Your task to perform on an android device: Open Youtube and go to the subscriptions tab Image 0: 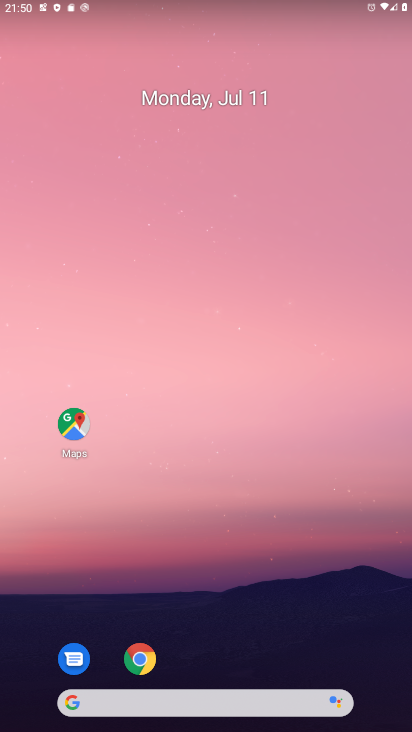
Step 0: click (249, 47)
Your task to perform on an android device: Open Youtube and go to the subscriptions tab Image 1: 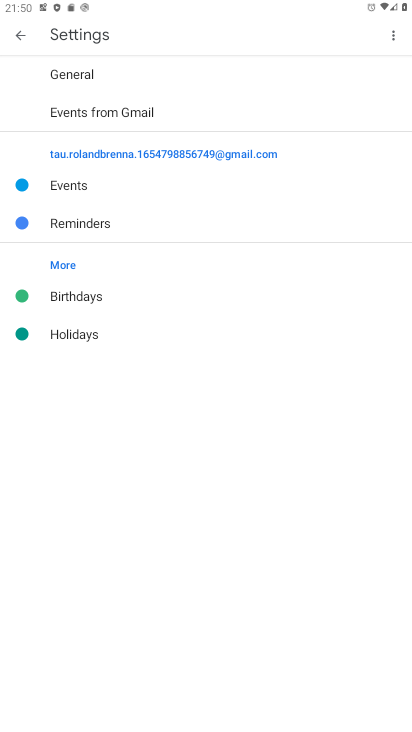
Step 1: press home button
Your task to perform on an android device: Open Youtube and go to the subscriptions tab Image 2: 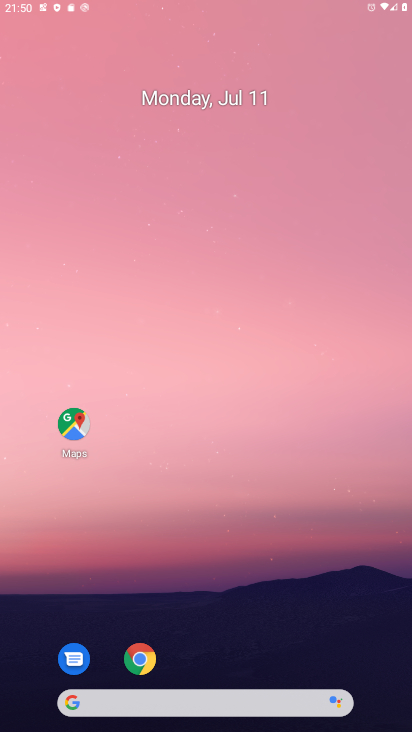
Step 2: drag from (154, 653) to (290, 183)
Your task to perform on an android device: Open Youtube and go to the subscriptions tab Image 3: 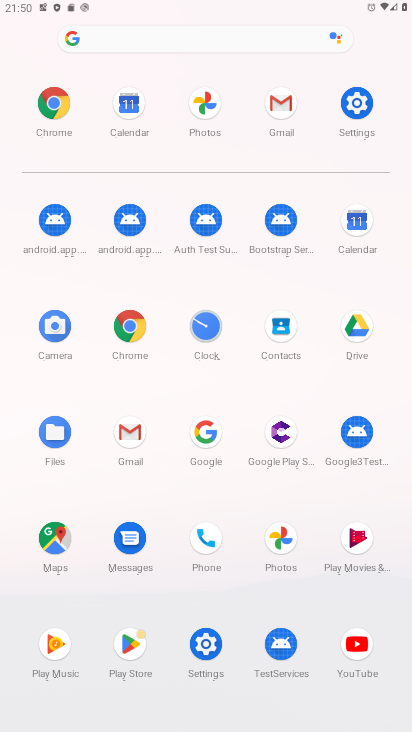
Step 3: click (352, 638)
Your task to perform on an android device: Open Youtube and go to the subscriptions tab Image 4: 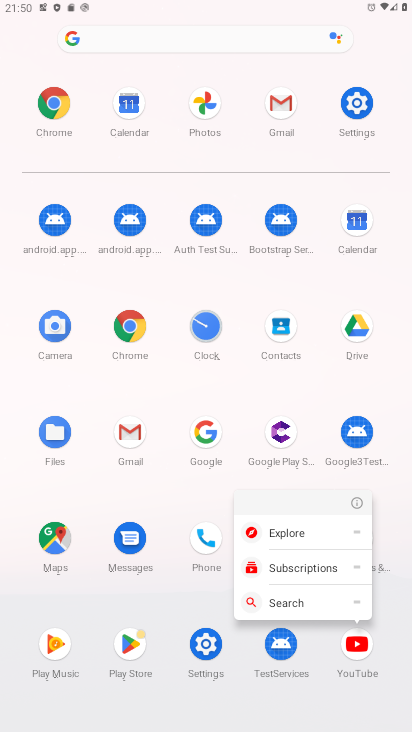
Step 4: click (354, 506)
Your task to perform on an android device: Open Youtube and go to the subscriptions tab Image 5: 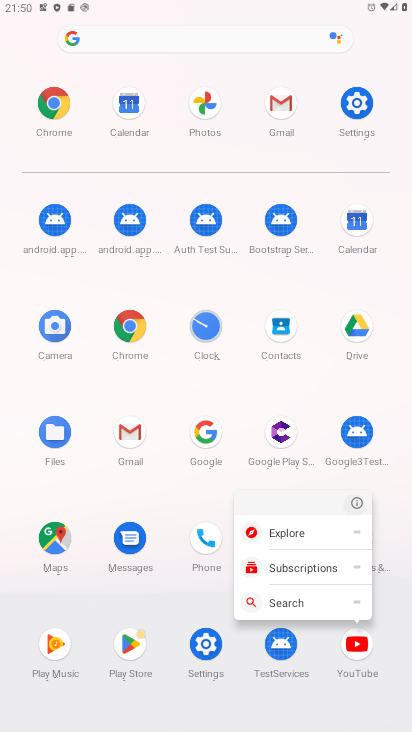
Step 5: click (352, 505)
Your task to perform on an android device: Open Youtube and go to the subscriptions tab Image 6: 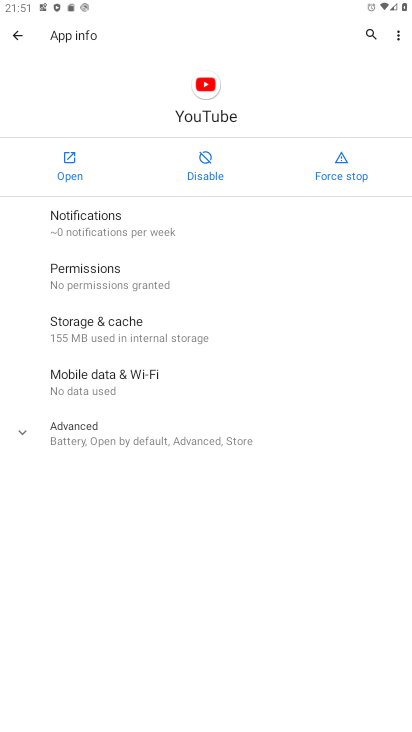
Step 6: click (73, 157)
Your task to perform on an android device: Open Youtube and go to the subscriptions tab Image 7: 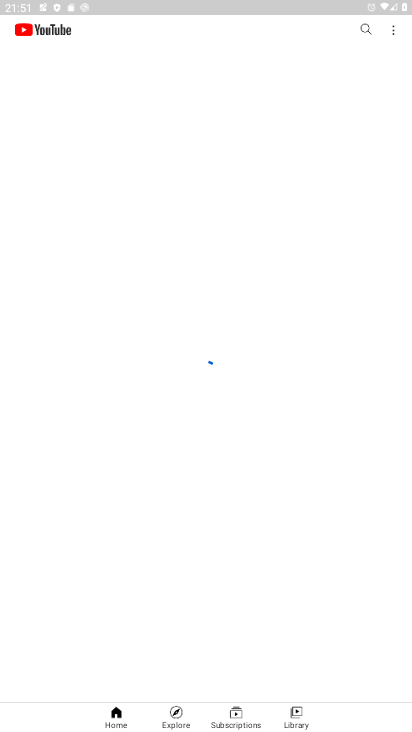
Step 7: click (246, 713)
Your task to perform on an android device: Open Youtube and go to the subscriptions tab Image 8: 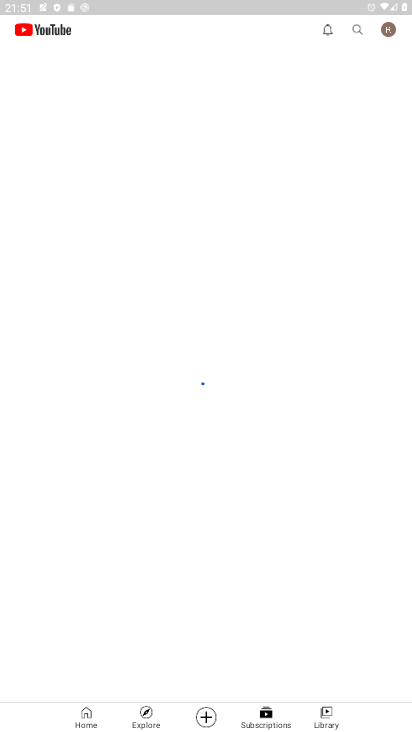
Step 8: click (281, 719)
Your task to perform on an android device: Open Youtube and go to the subscriptions tab Image 9: 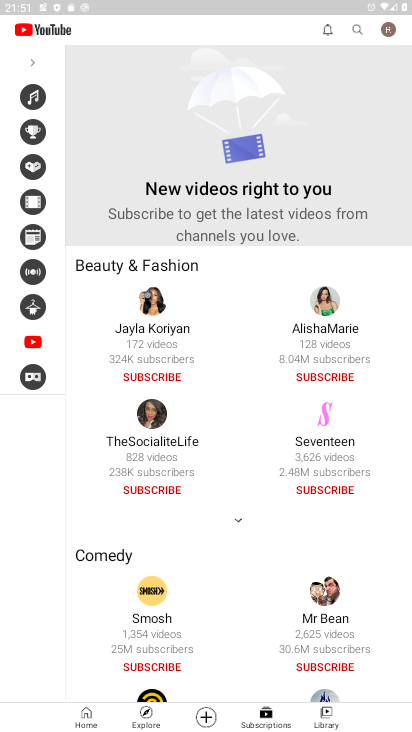
Step 9: task complete